Your task to perform on an android device: turn on the 24-hour format for clock Image 0: 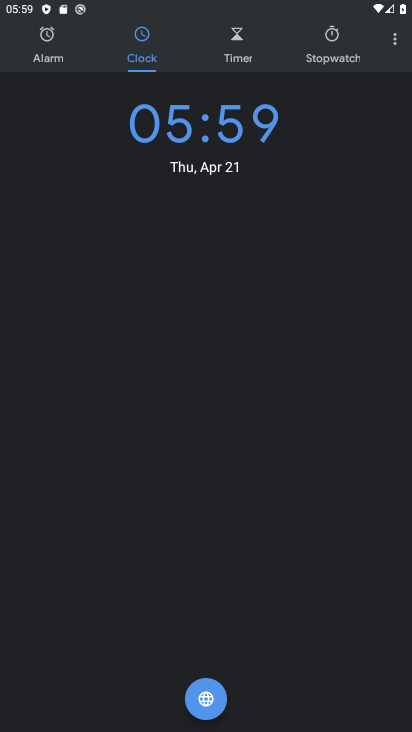
Step 0: press home button
Your task to perform on an android device: turn on the 24-hour format for clock Image 1: 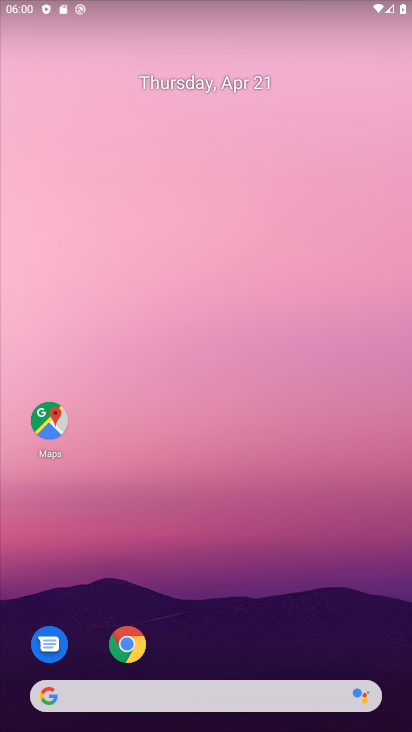
Step 1: drag from (288, 492) to (283, 250)
Your task to perform on an android device: turn on the 24-hour format for clock Image 2: 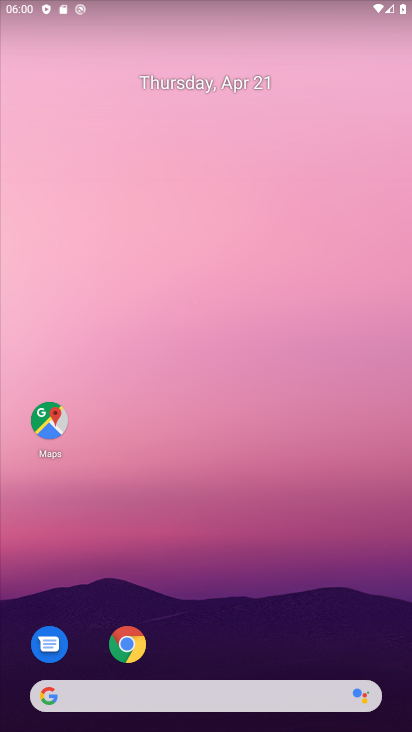
Step 2: drag from (274, 597) to (206, 166)
Your task to perform on an android device: turn on the 24-hour format for clock Image 3: 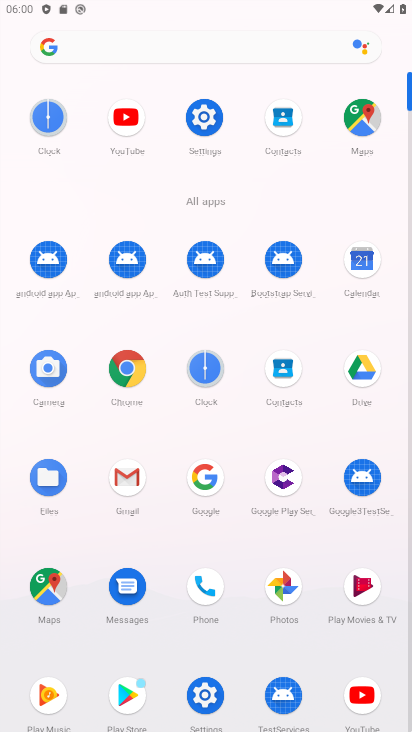
Step 3: click (201, 366)
Your task to perform on an android device: turn on the 24-hour format for clock Image 4: 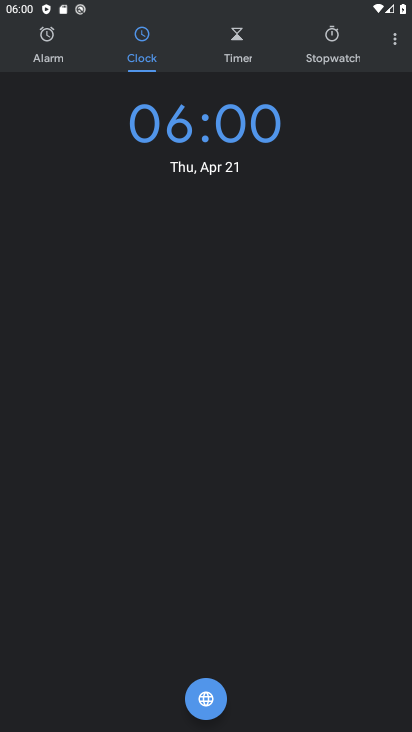
Step 4: click (392, 34)
Your task to perform on an android device: turn on the 24-hour format for clock Image 5: 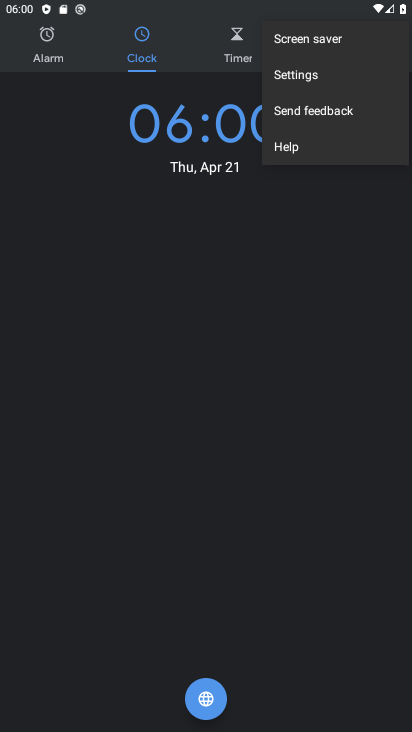
Step 5: click (319, 72)
Your task to perform on an android device: turn on the 24-hour format for clock Image 6: 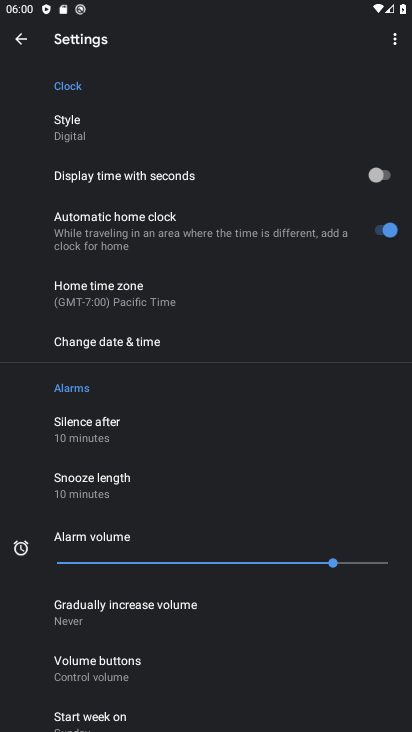
Step 6: click (131, 340)
Your task to perform on an android device: turn on the 24-hour format for clock Image 7: 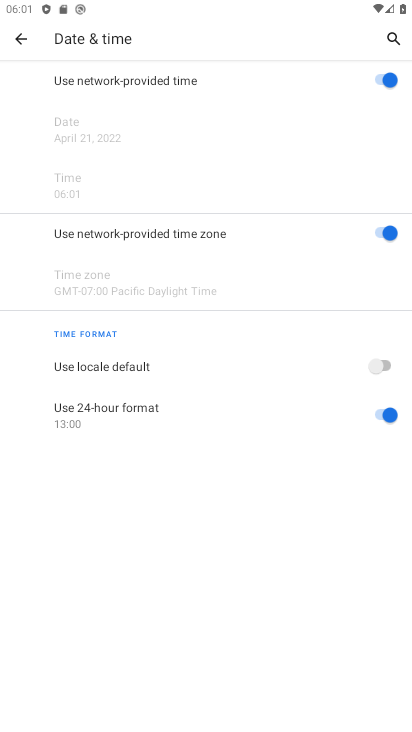
Step 7: task complete